Your task to perform on an android device: toggle improve location accuracy Image 0: 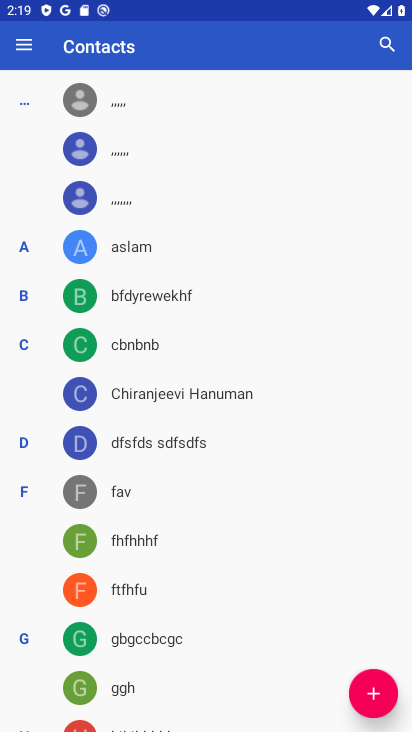
Step 0: press back button
Your task to perform on an android device: toggle improve location accuracy Image 1: 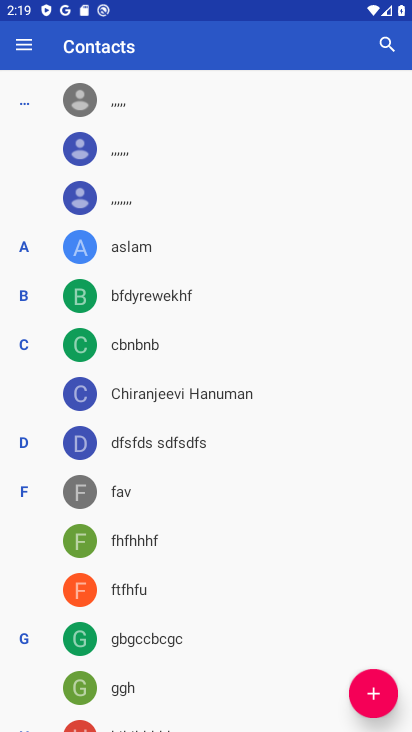
Step 1: press back button
Your task to perform on an android device: toggle improve location accuracy Image 2: 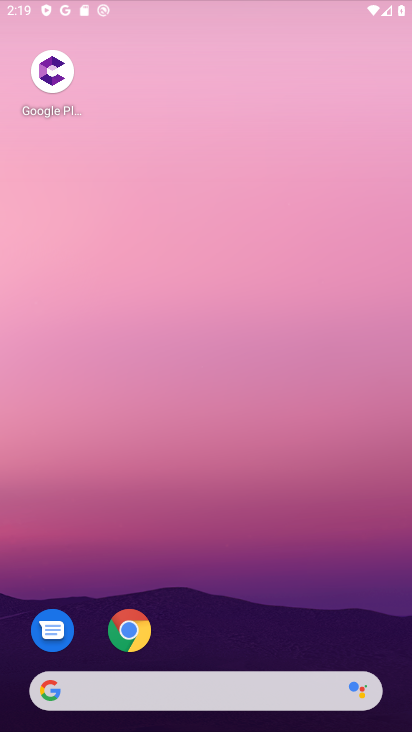
Step 2: press back button
Your task to perform on an android device: toggle improve location accuracy Image 3: 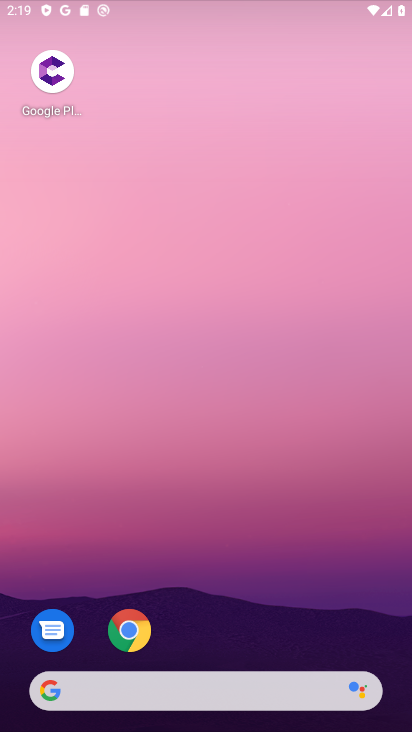
Step 3: drag from (213, 453) to (166, 56)
Your task to perform on an android device: toggle improve location accuracy Image 4: 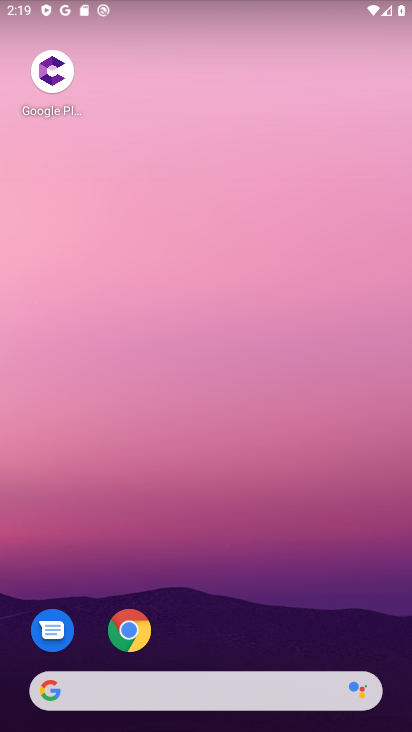
Step 4: drag from (216, 483) to (128, 133)
Your task to perform on an android device: toggle improve location accuracy Image 5: 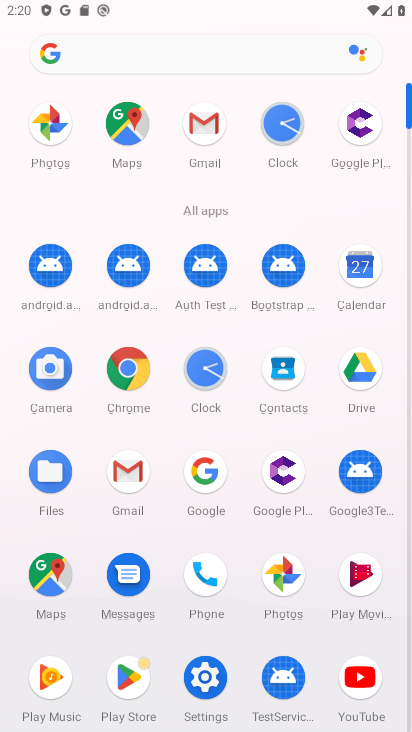
Step 5: click (205, 664)
Your task to perform on an android device: toggle improve location accuracy Image 6: 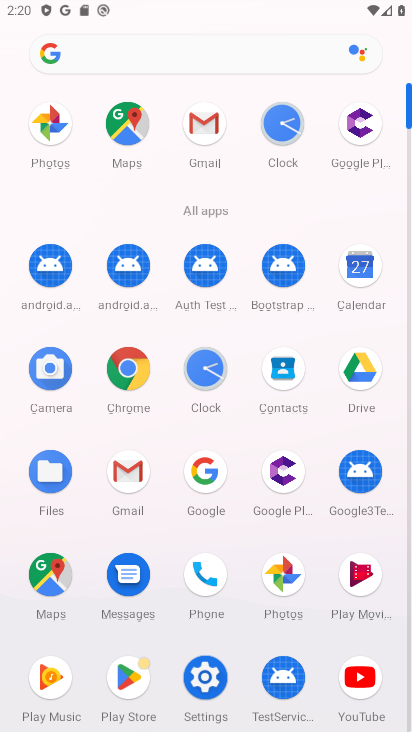
Step 6: click (207, 670)
Your task to perform on an android device: toggle improve location accuracy Image 7: 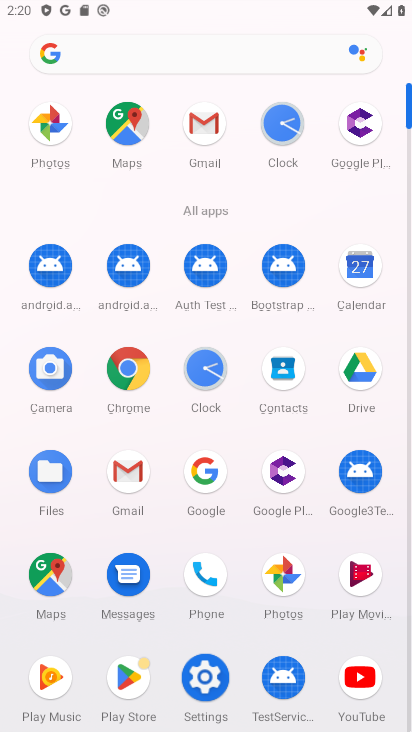
Step 7: click (207, 670)
Your task to perform on an android device: toggle improve location accuracy Image 8: 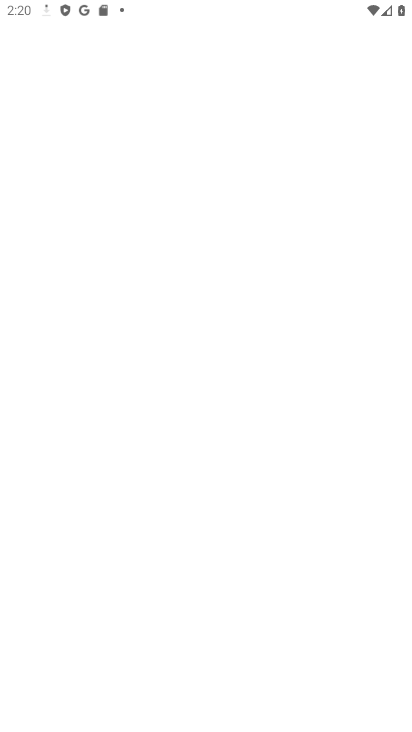
Step 8: click (207, 675)
Your task to perform on an android device: toggle improve location accuracy Image 9: 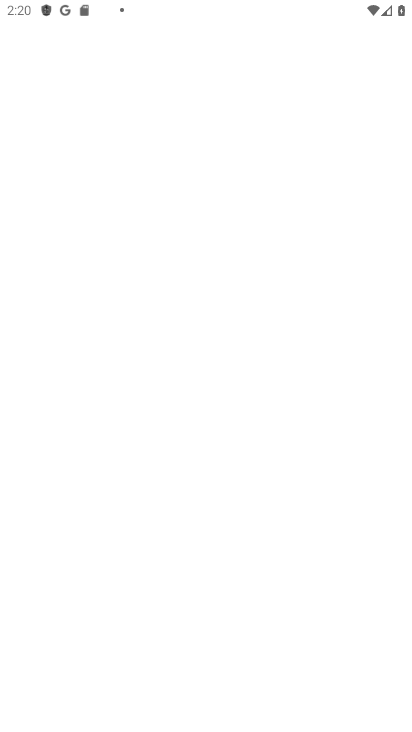
Step 9: click (207, 675)
Your task to perform on an android device: toggle improve location accuracy Image 10: 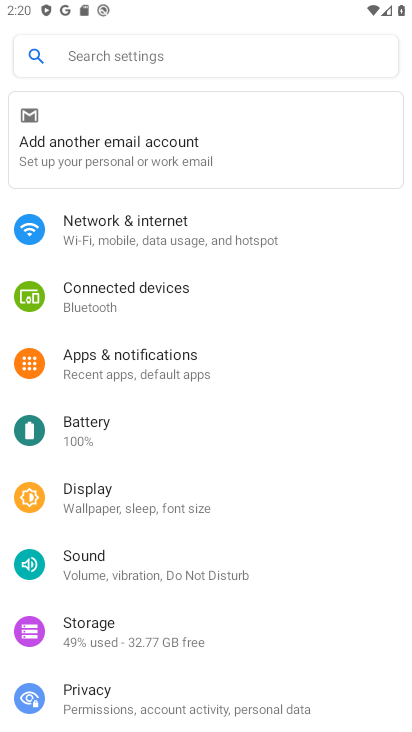
Step 10: drag from (112, 576) to (106, 139)
Your task to perform on an android device: toggle improve location accuracy Image 11: 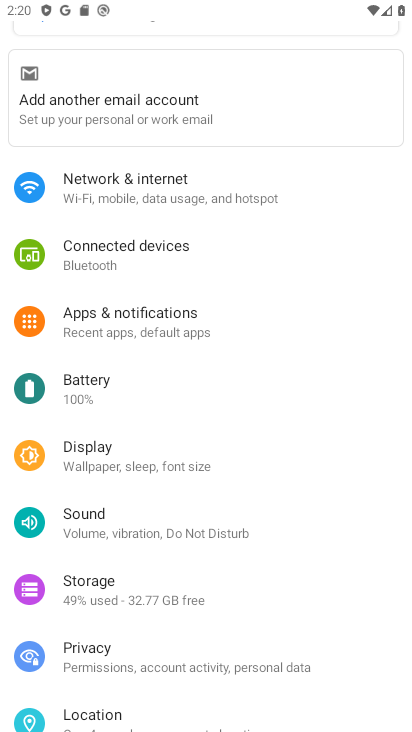
Step 11: drag from (201, 518) to (151, 189)
Your task to perform on an android device: toggle improve location accuracy Image 12: 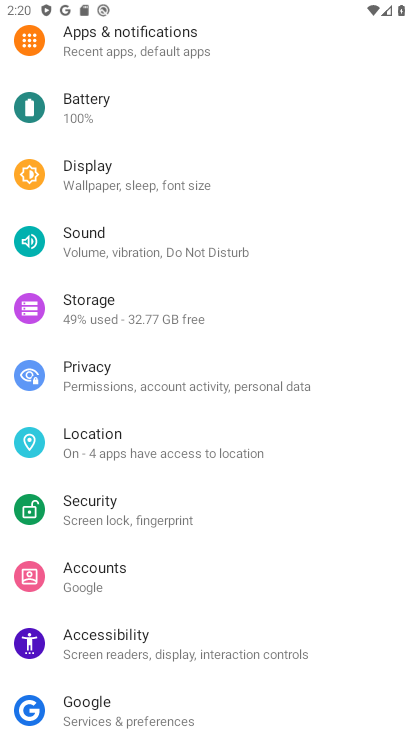
Step 12: drag from (44, 599) to (117, 478)
Your task to perform on an android device: toggle improve location accuracy Image 13: 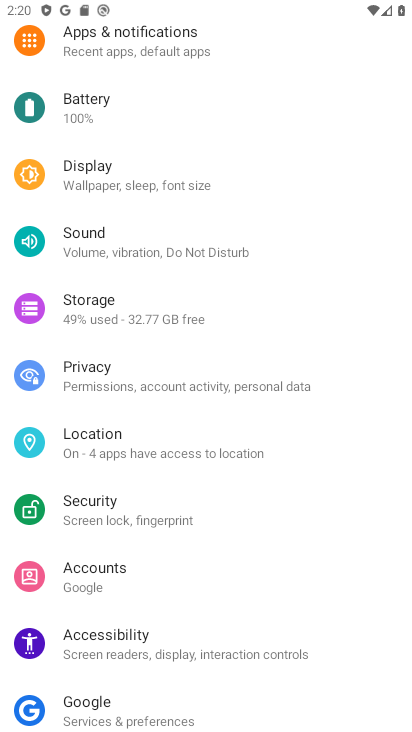
Step 13: drag from (149, 581) to (149, 328)
Your task to perform on an android device: toggle improve location accuracy Image 14: 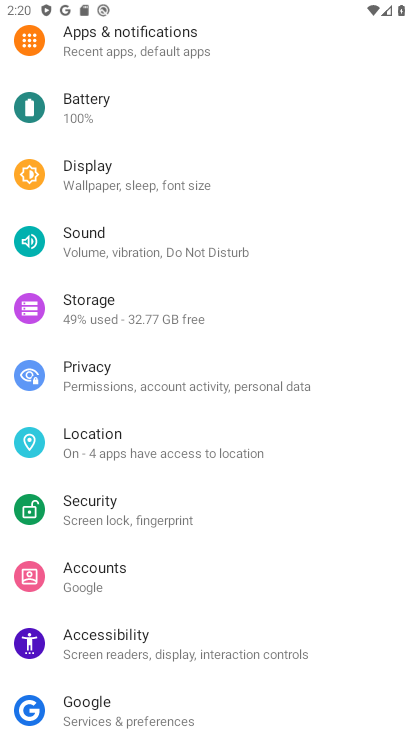
Step 14: click (113, 448)
Your task to perform on an android device: toggle improve location accuracy Image 15: 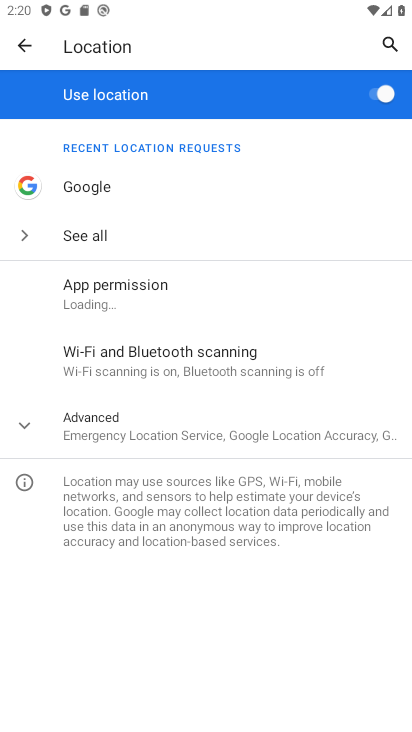
Step 15: click (100, 429)
Your task to perform on an android device: toggle improve location accuracy Image 16: 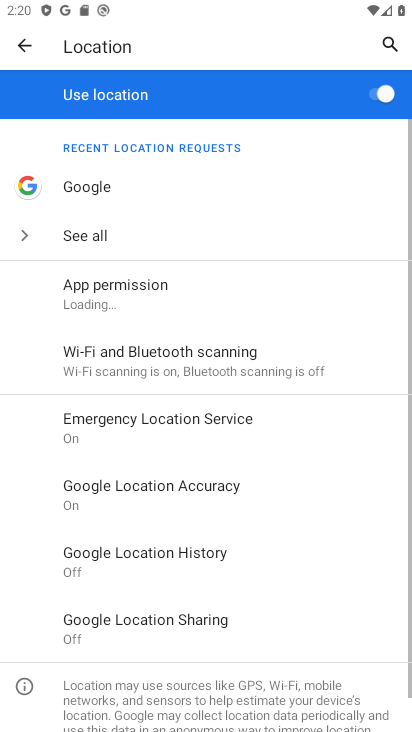
Step 16: click (195, 488)
Your task to perform on an android device: toggle improve location accuracy Image 17: 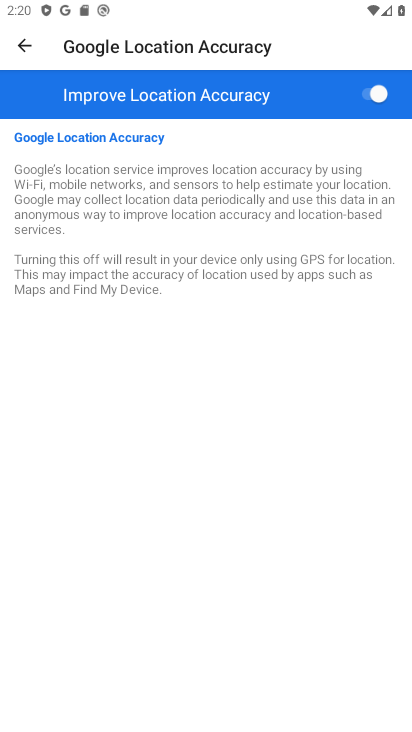
Step 17: click (379, 87)
Your task to perform on an android device: toggle improve location accuracy Image 18: 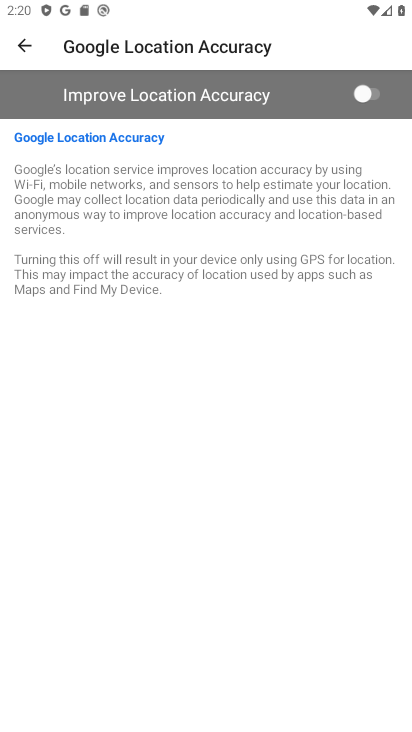
Step 18: task complete